Your task to perform on an android device: Search for the best rated desk chair on Article.com Image 0: 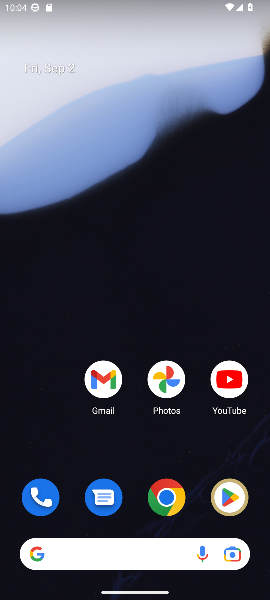
Step 0: drag from (127, 482) to (112, 23)
Your task to perform on an android device: Search for the best rated desk chair on Article.com Image 1: 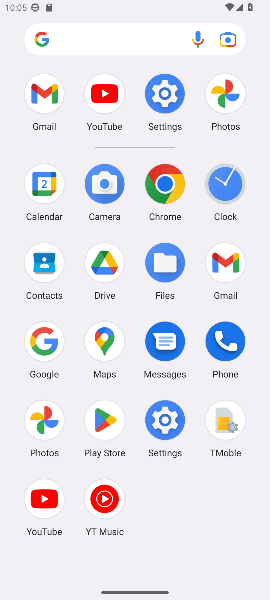
Step 1: click (43, 345)
Your task to perform on an android device: Search for the best rated desk chair on Article.com Image 2: 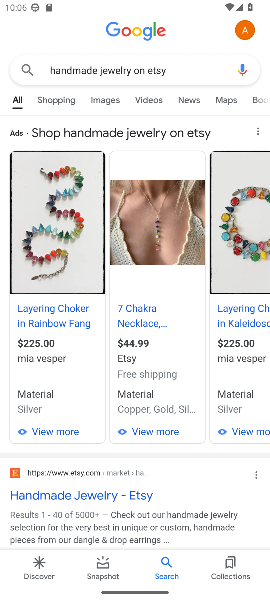
Step 2: click (172, 61)
Your task to perform on an android device: Search for the best rated desk chair on Article.com Image 3: 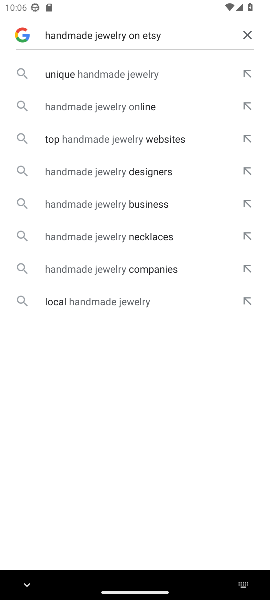
Step 3: click (247, 36)
Your task to perform on an android device: Search for the best rated desk chair on Article.com Image 4: 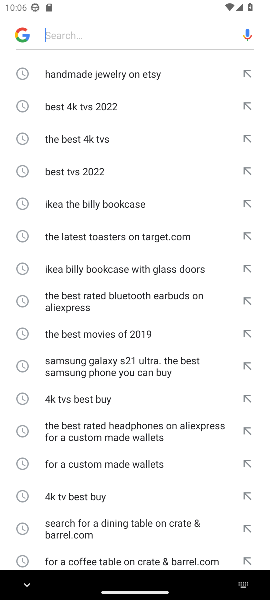
Step 4: type "the best rated desk chair on Article.com"
Your task to perform on an android device: Search for the best rated desk chair on Article.com Image 5: 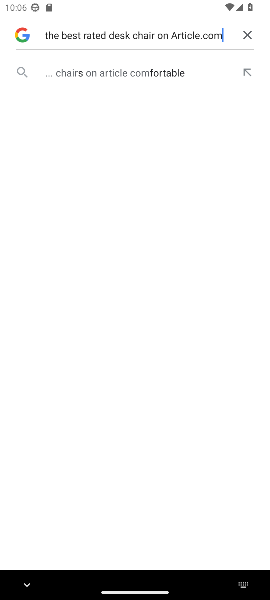
Step 5: click (128, 73)
Your task to perform on an android device: Search for the best rated desk chair on Article.com Image 6: 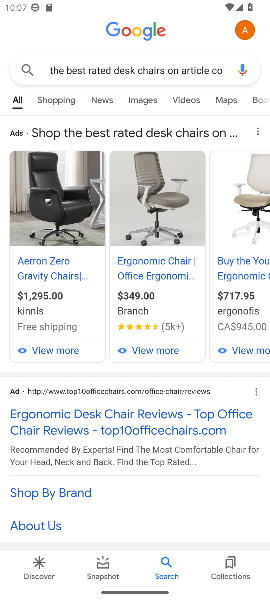
Step 6: task complete